Your task to perform on an android device: turn on showing notifications on the lock screen Image 0: 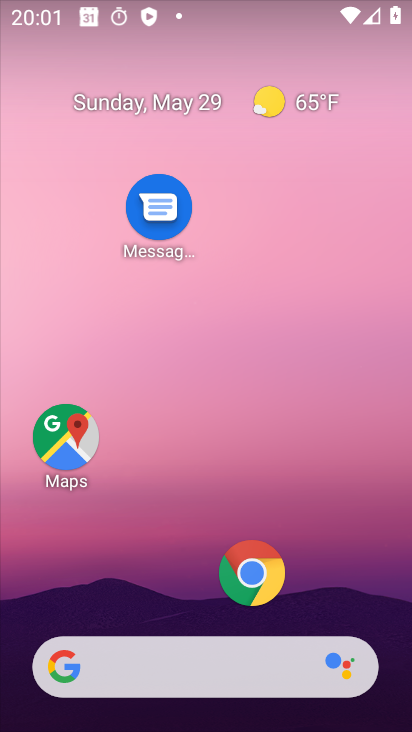
Step 0: drag from (186, 580) to (207, 237)
Your task to perform on an android device: turn on showing notifications on the lock screen Image 1: 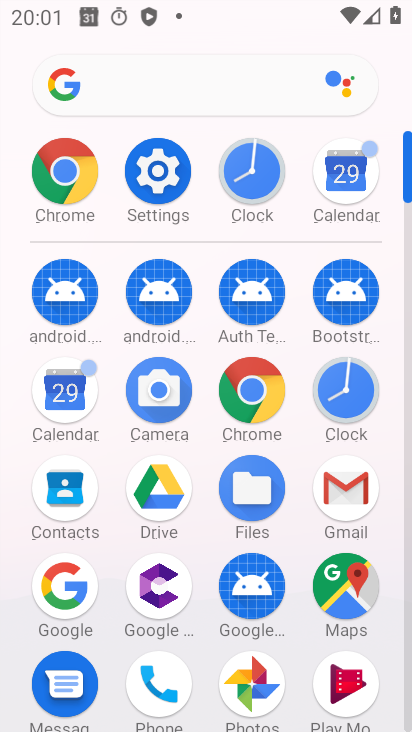
Step 1: click (171, 196)
Your task to perform on an android device: turn on showing notifications on the lock screen Image 2: 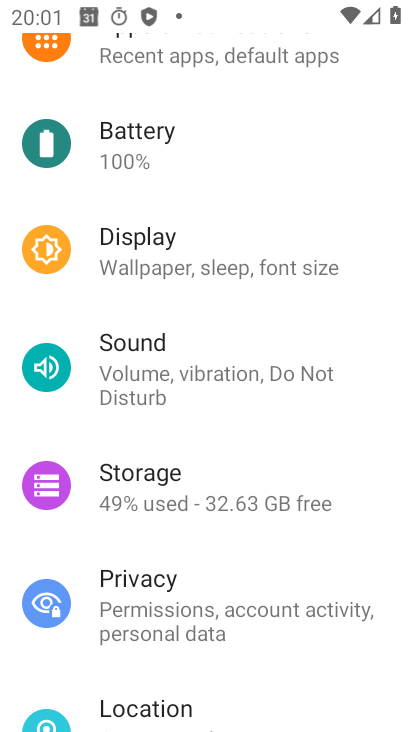
Step 2: drag from (228, 180) to (250, 508)
Your task to perform on an android device: turn on showing notifications on the lock screen Image 3: 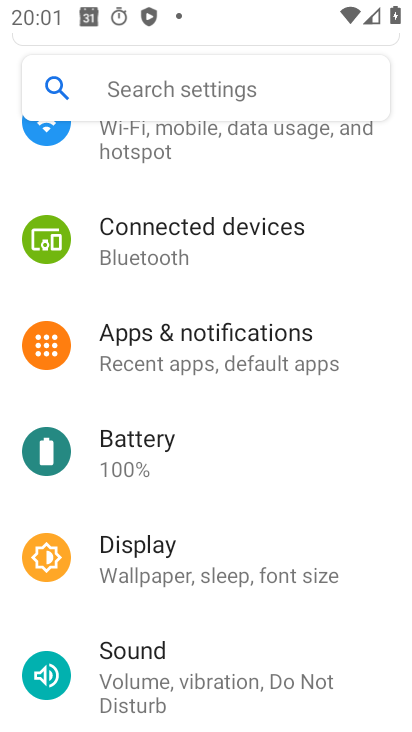
Step 3: drag from (174, 400) to (167, 537)
Your task to perform on an android device: turn on showing notifications on the lock screen Image 4: 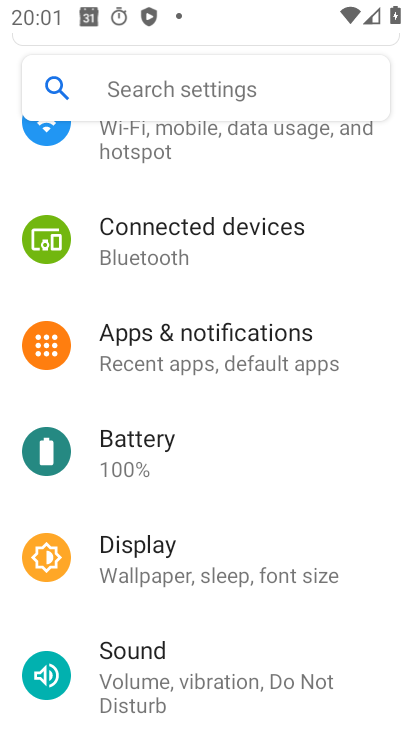
Step 4: click (190, 361)
Your task to perform on an android device: turn on showing notifications on the lock screen Image 5: 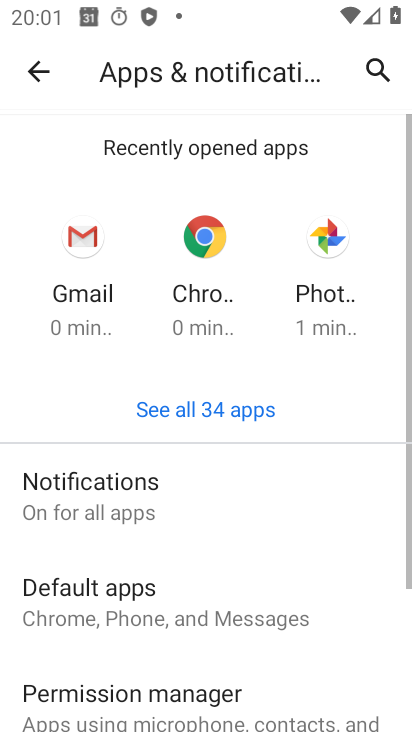
Step 5: click (151, 480)
Your task to perform on an android device: turn on showing notifications on the lock screen Image 6: 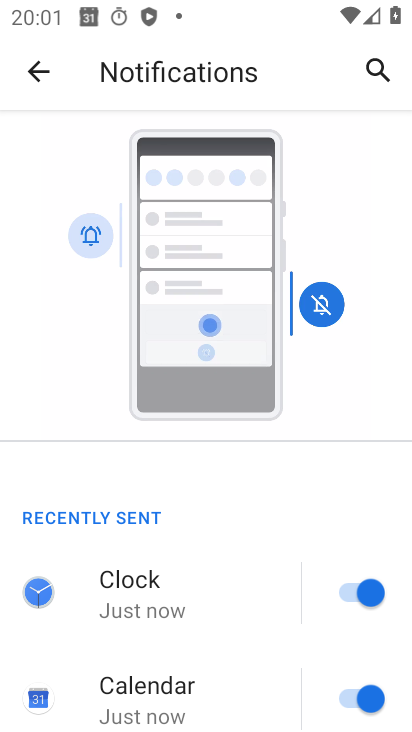
Step 6: drag from (221, 632) to (234, 266)
Your task to perform on an android device: turn on showing notifications on the lock screen Image 7: 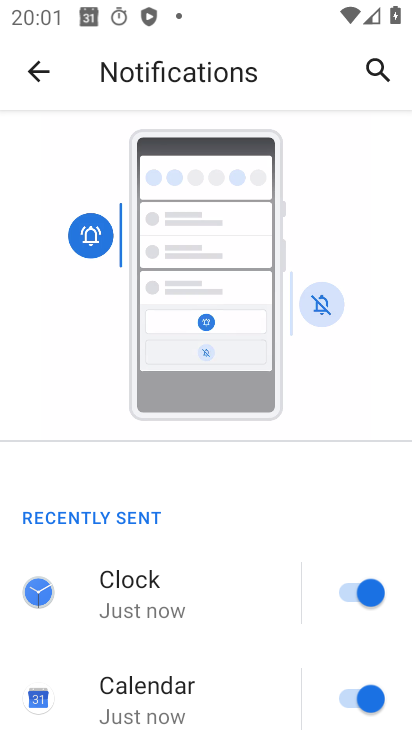
Step 7: drag from (154, 620) to (215, 211)
Your task to perform on an android device: turn on showing notifications on the lock screen Image 8: 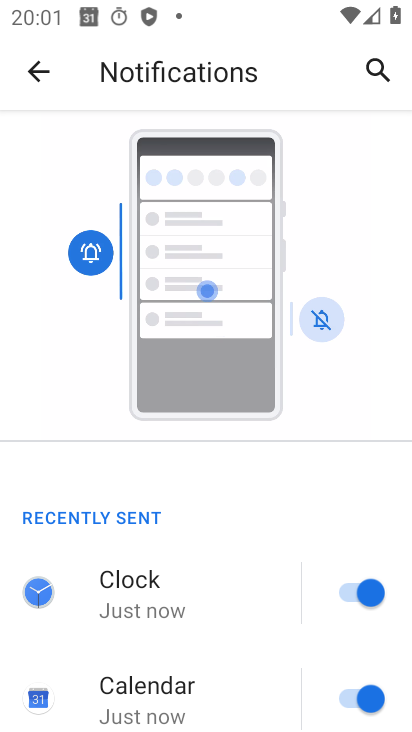
Step 8: drag from (188, 662) to (215, 297)
Your task to perform on an android device: turn on showing notifications on the lock screen Image 9: 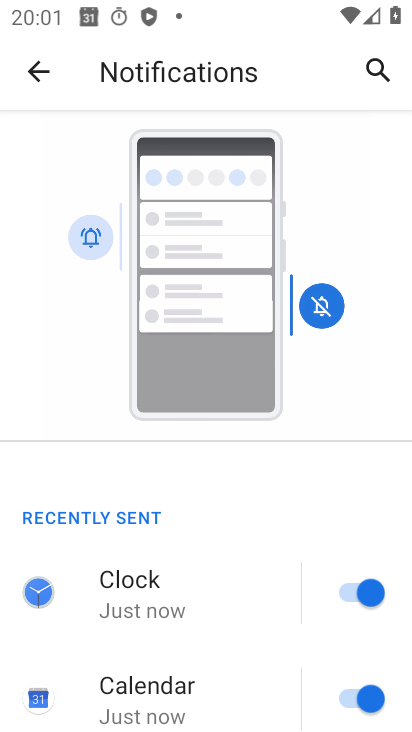
Step 9: drag from (51, 647) to (201, 146)
Your task to perform on an android device: turn on showing notifications on the lock screen Image 10: 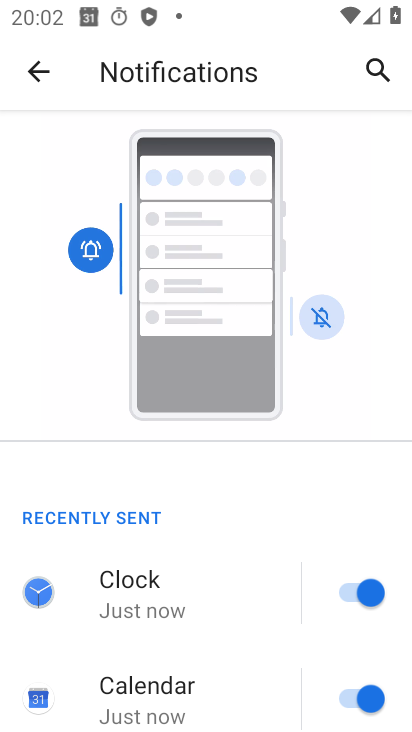
Step 10: drag from (207, 690) to (184, 256)
Your task to perform on an android device: turn on showing notifications on the lock screen Image 11: 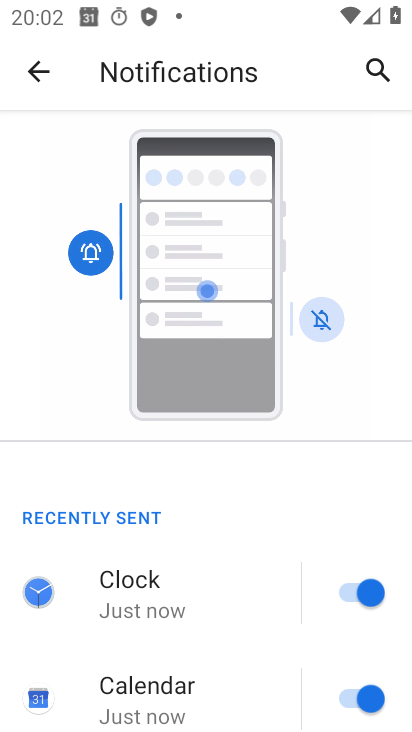
Step 11: drag from (164, 592) to (177, 211)
Your task to perform on an android device: turn on showing notifications on the lock screen Image 12: 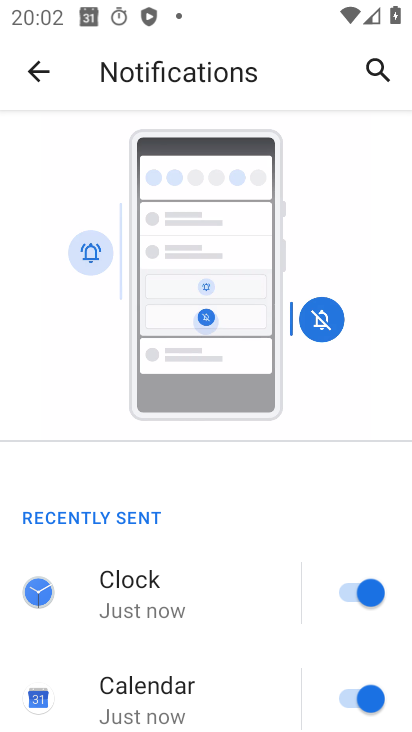
Step 12: drag from (272, 629) to (284, 172)
Your task to perform on an android device: turn on showing notifications on the lock screen Image 13: 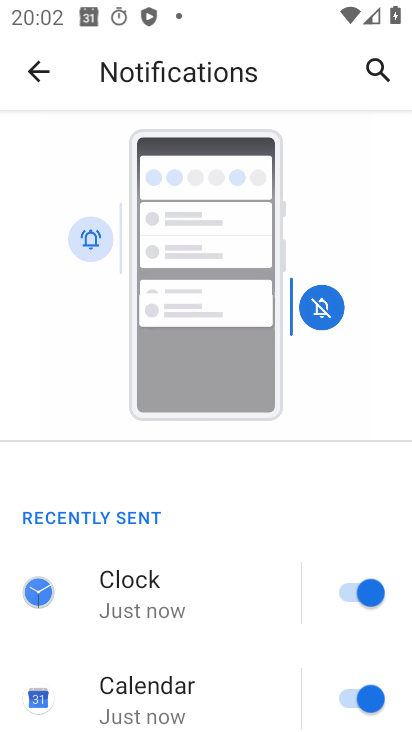
Step 13: drag from (205, 493) to (207, 172)
Your task to perform on an android device: turn on showing notifications on the lock screen Image 14: 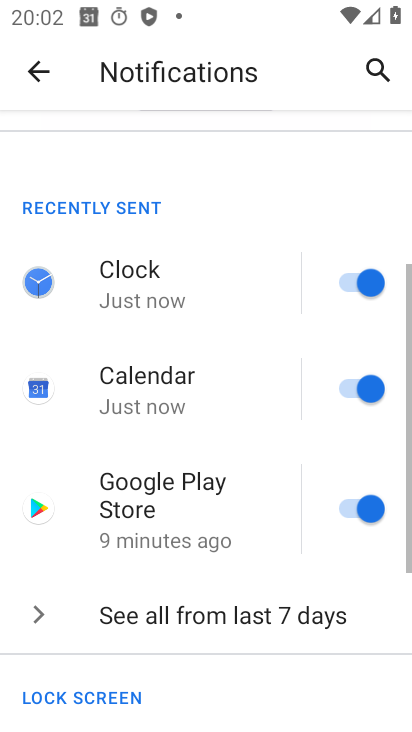
Step 14: drag from (194, 524) to (201, 230)
Your task to perform on an android device: turn on showing notifications on the lock screen Image 15: 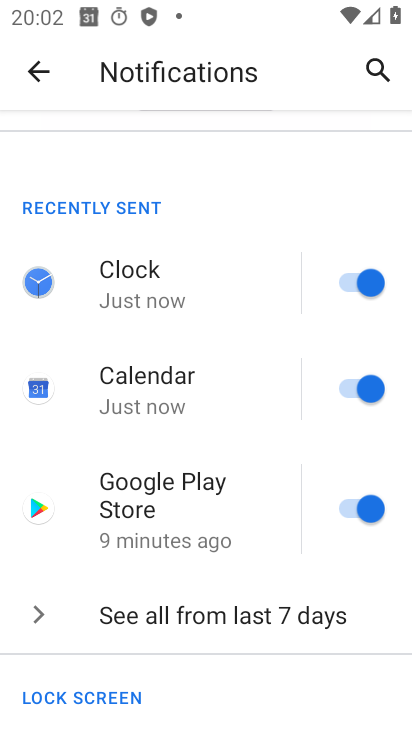
Step 15: drag from (204, 661) to (211, 270)
Your task to perform on an android device: turn on showing notifications on the lock screen Image 16: 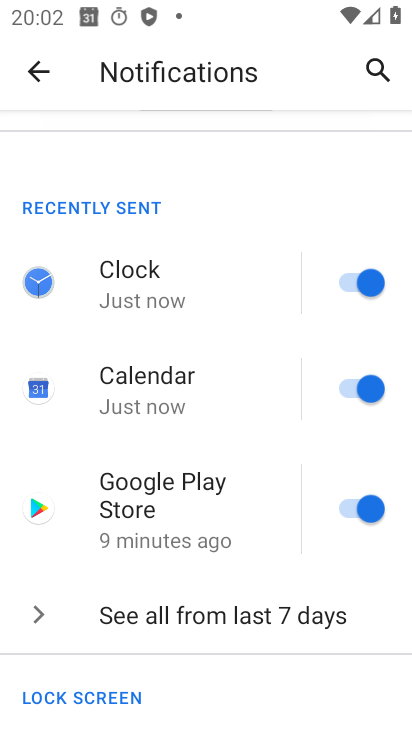
Step 16: drag from (224, 380) to (214, 154)
Your task to perform on an android device: turn on showing notifications on the lock screen Image 17: 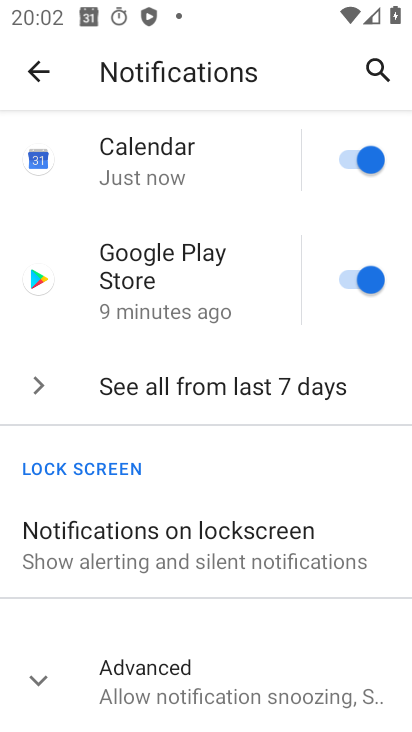
Step 17: click (146, 518)
Your task to perform on an android device: turn on showing notifications on the lock screen Image 18: 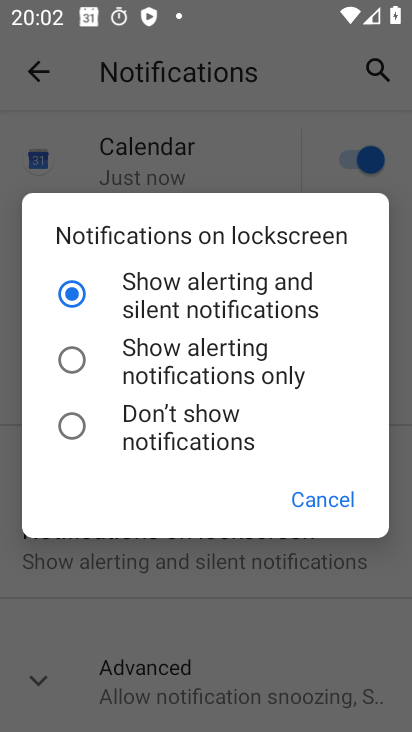
Step 18: task complete